Your task to perform on an android device: change notification settings in the gmail app Image 0: 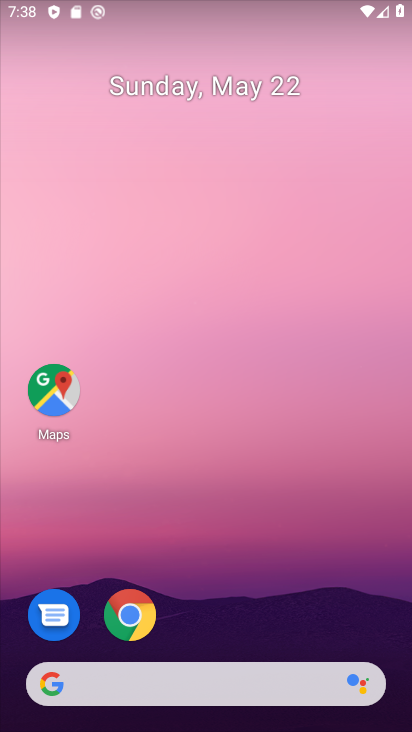
Step 0: drag from (246, 650) to (170, 6)
Your task to perform on an android device: change notification settings in the gmail app Image 1: 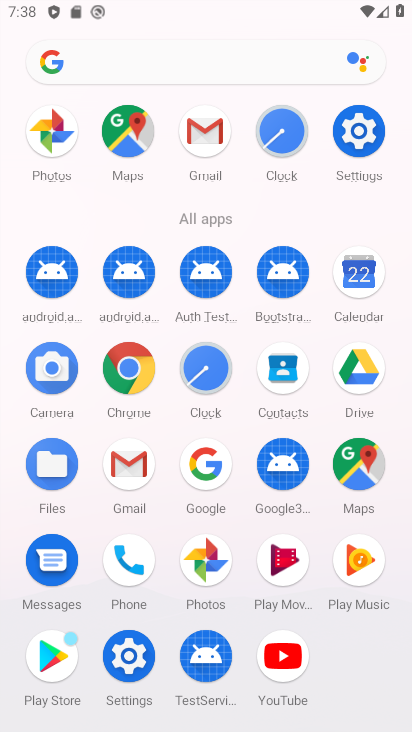
Step 1: click (147, 458)
Your task to perform on an android device: change notification settings in the gmail app Image 2: 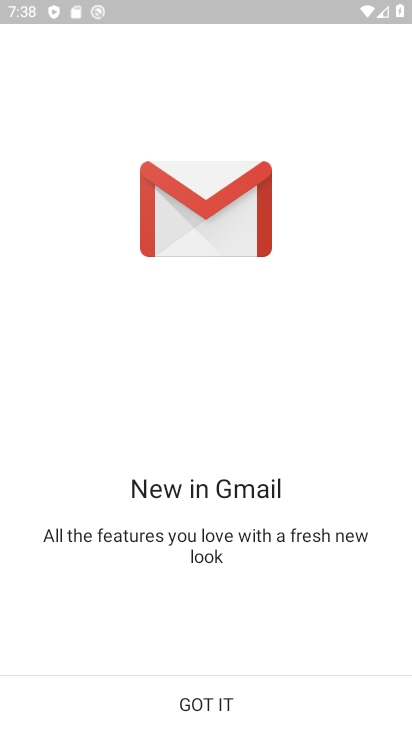
Step 2: click (203, 719)
Your task to perform on an android device: change notification settings in the gmail app Image 3: 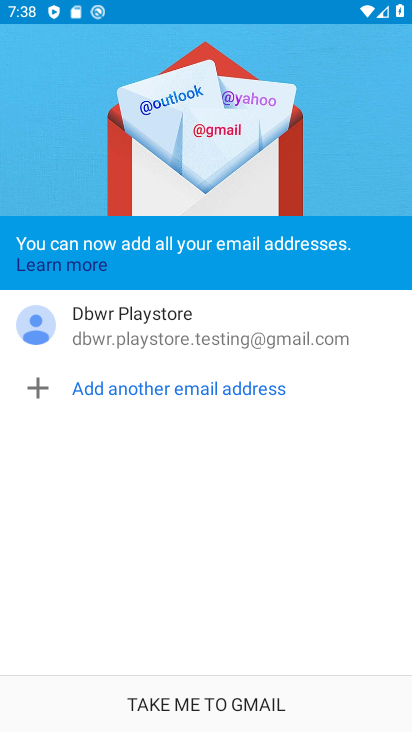
Step 3: click (203, 719)
Your task to perform on an android device: change notification settings in the gmail app Image 4: 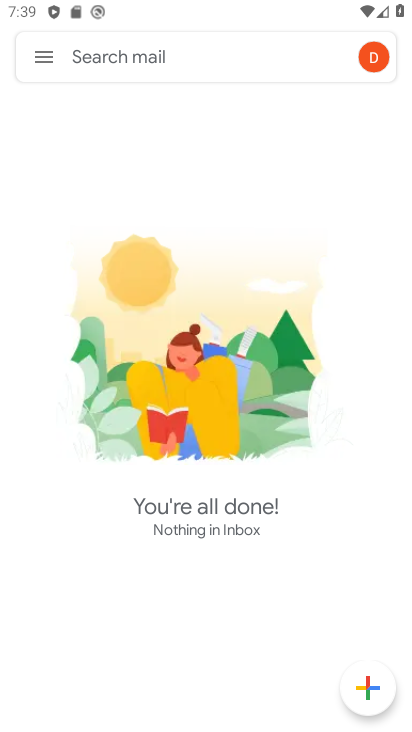
Step 4: click (43, 55)
Your task to perform on an android device: change notification settings in the gmail app Image 5: 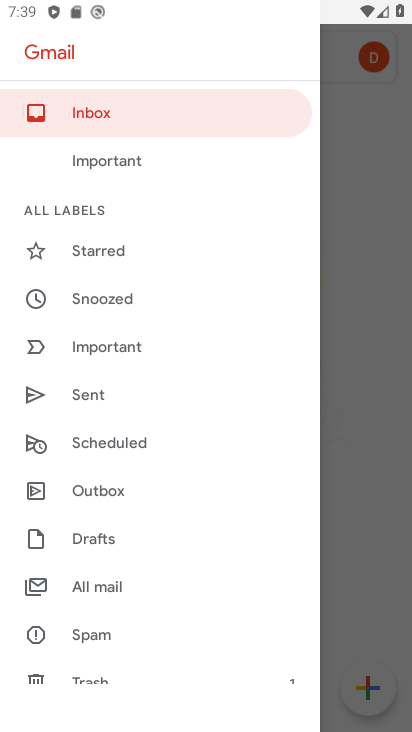
Step 5: drag from (236, 559) to (99, 27)
Your task to perform on an android device: change notification settings in the gmail app Image 6: 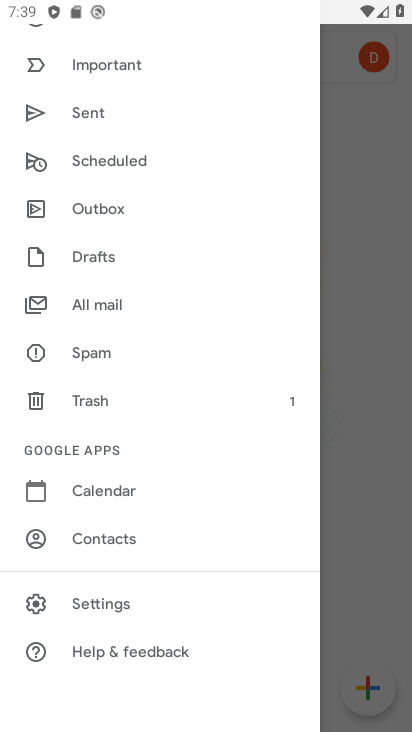
Step 6: click (94, 611)
Your task to perform on an android device: change notification settings in the gmail app Image 7: 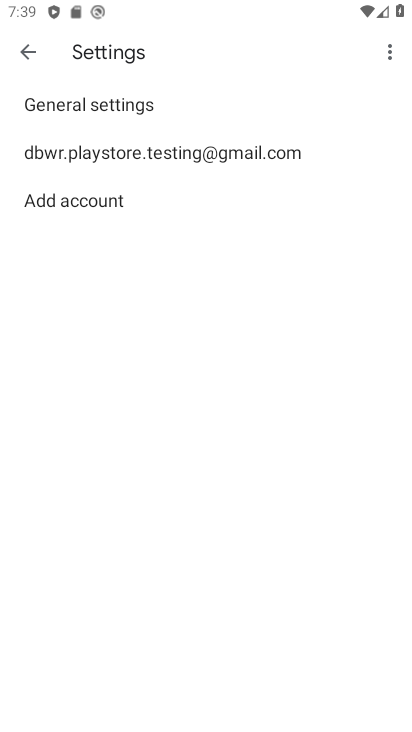
Step 7: click (87, 97)
Your task to perform on an android device: change notification settings in the gmail app Image 8: 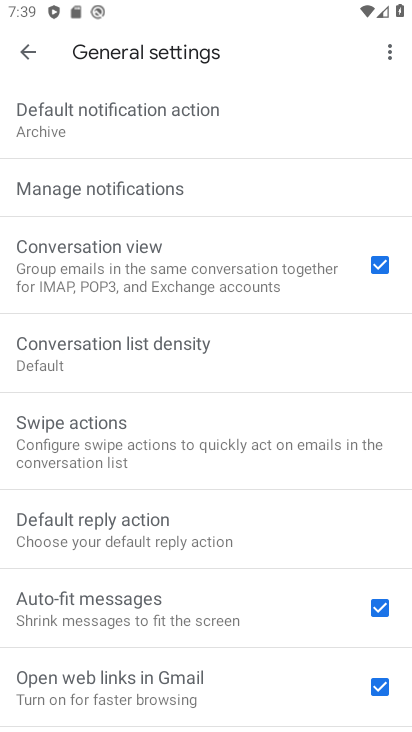
Step 8: click (123, 198)
Your task to perform on an android device: change notification settings in the gmail app Image 9: 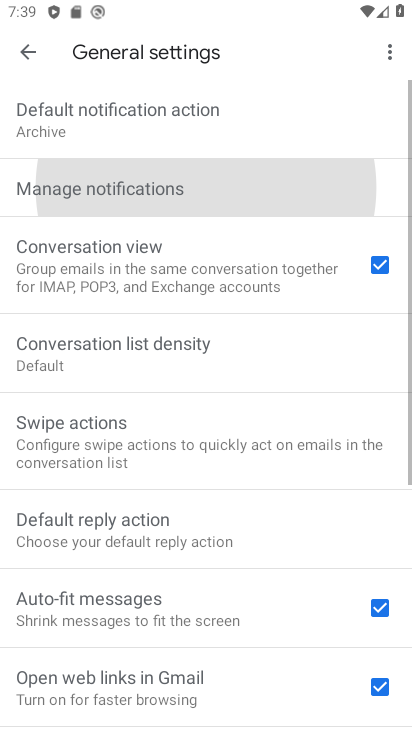
Step 9: click (123, 198)
Your task to perform on an android device: change notification settings in the gmail app Image 10: 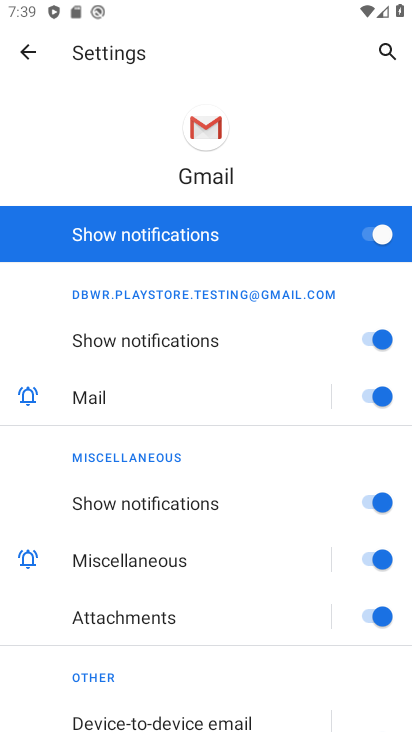
Step 10: click (377, 234)
Your task to perform on an android device: change notification settings in the gmail app Image 11: 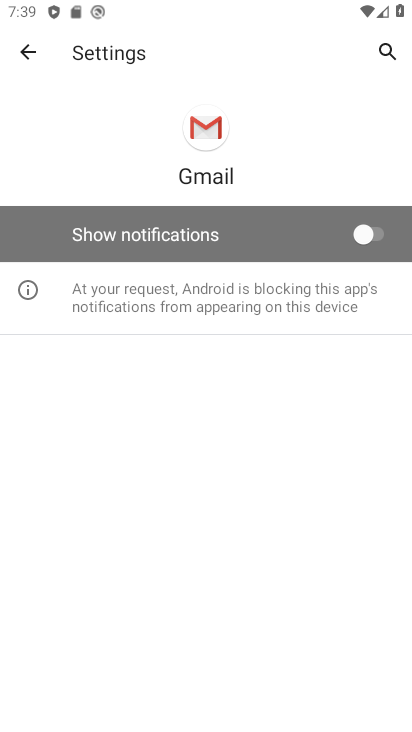
Step 11: task complete